Your task to perform on an android device: turn off picture-in-picture Image 0: 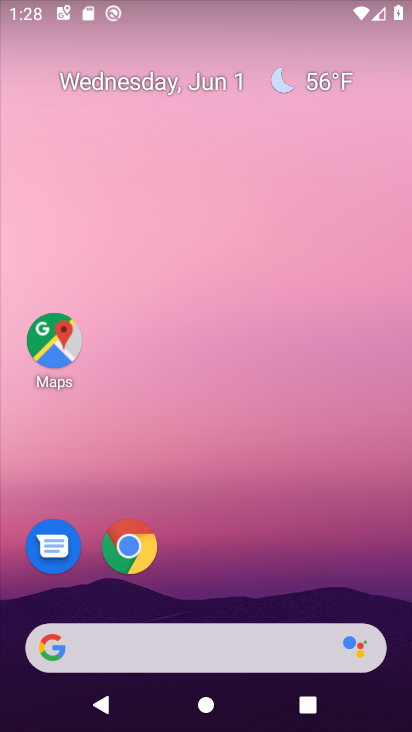
Step 0: click (133, 552)
Your task to perform on an android device: turn off picture-in-picture Image 1: 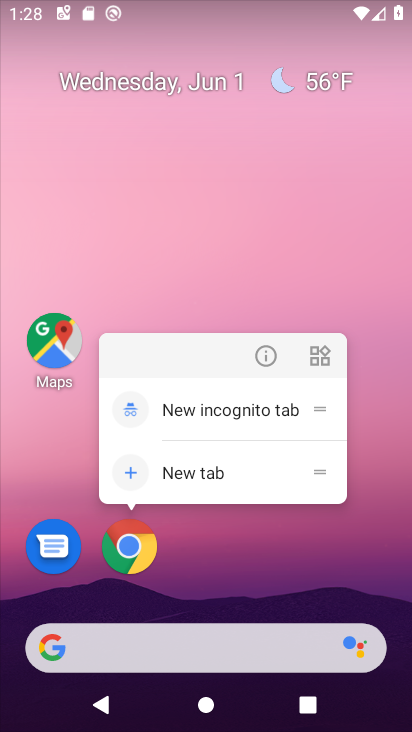
Step 1: click (272, 355)
Your task to perform on an android device: turn off picture-in-picture Image 2: 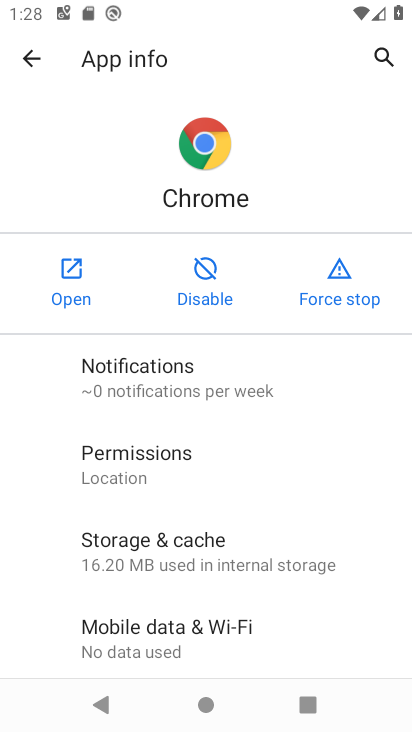
Step 2: drag from (271, 634) to (254, 215)
Your task to perform on an android device: turn off picture-in-picture Image 3: 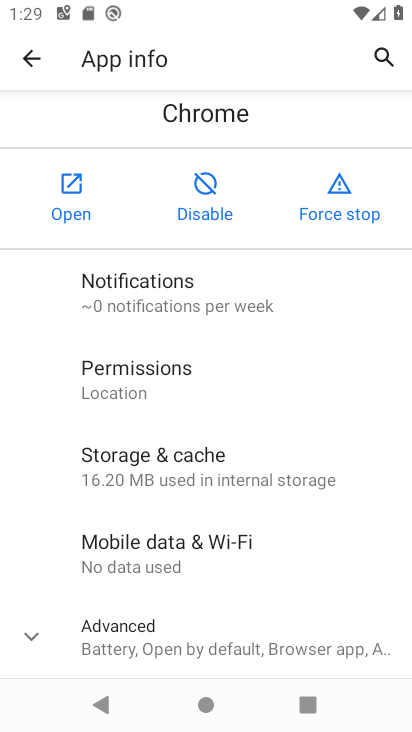
Step 3: click (119, 628)
Your task to perform on an android device: turn off picture-in-picture Image 4: 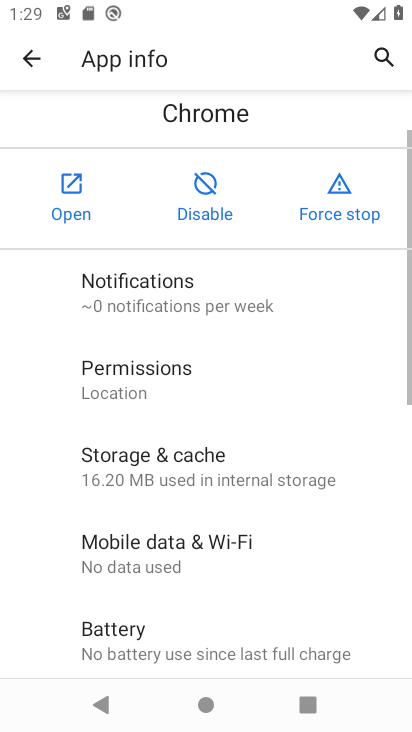
Step 4: drag from (254, 596) to (265, 246)
Your task to perform on an android device: turn off picture-in-picture Image 5: 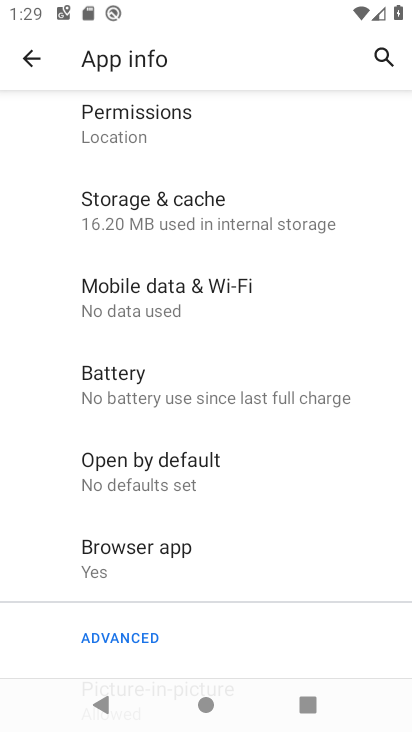
Step 5: drag from (214, 576) to (250, 291)
Your task to perform on an android device: turn off picture-in-picture Image 6: 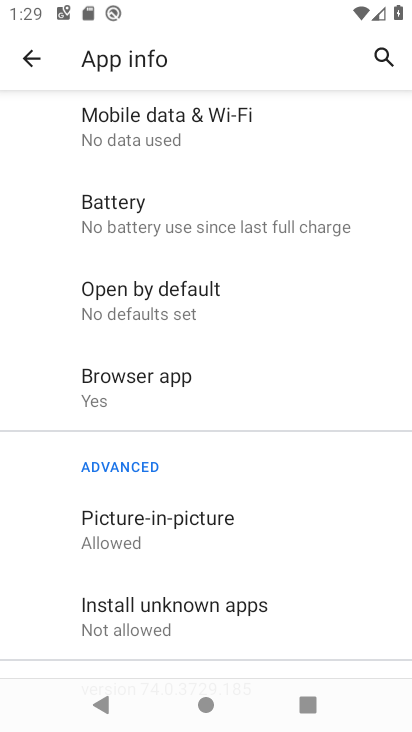
Step 6: click (190, 539)
Your task to perform on an android device: turn off picture-in-picture Image 7: 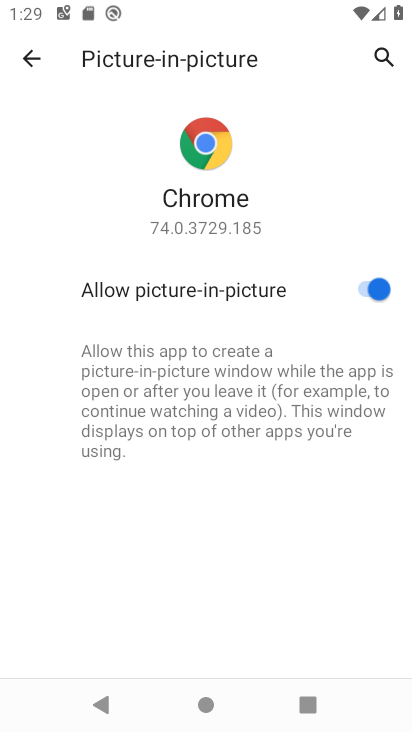
Step 7: click (374, 295)
Your task to perform on an android device: turn off picture-in-picture Image 8: 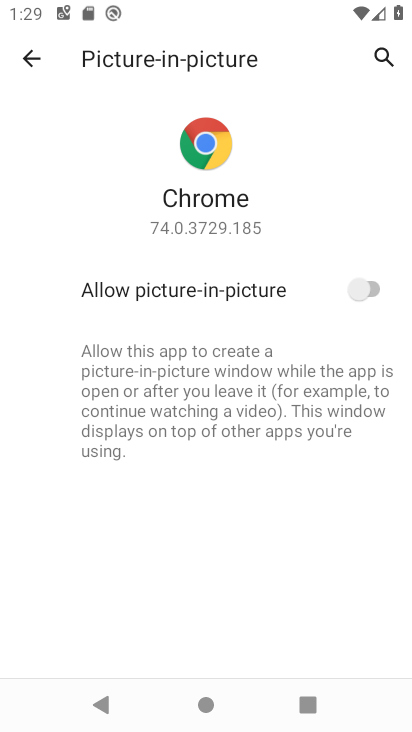
Step 8: task complete